Your task to perform on an android device: turn off smart reply in the gmail app Image 0: 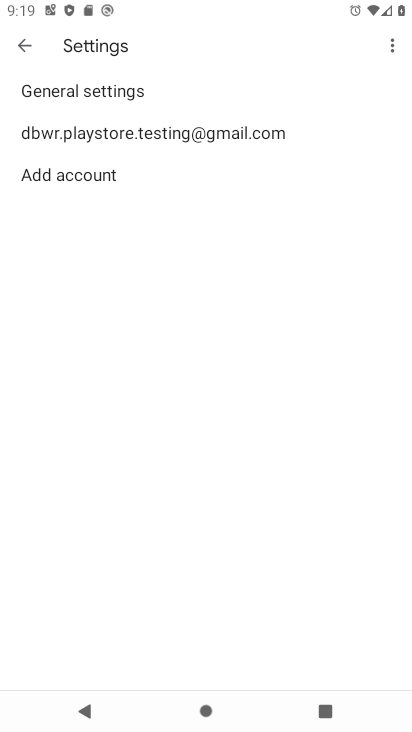
Step 0: press home button
Your task to perform on an android device: turn off smart reply in the gmail app Image 1: 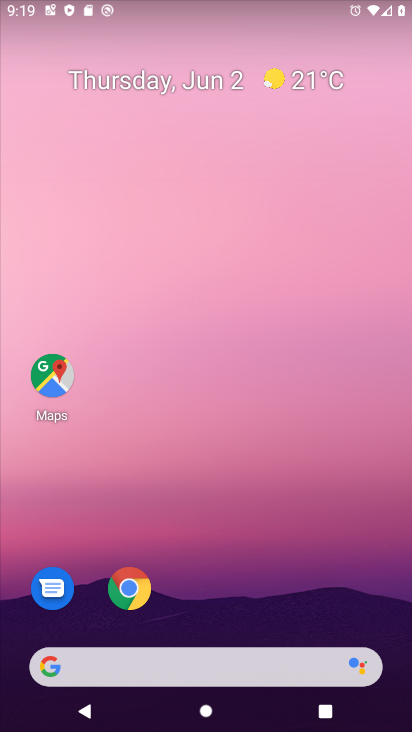
Step 1: drag from (220, 661) to (240, 87)
Your task to perform on an android device: turn off smart reply in the gmail app Image 2: 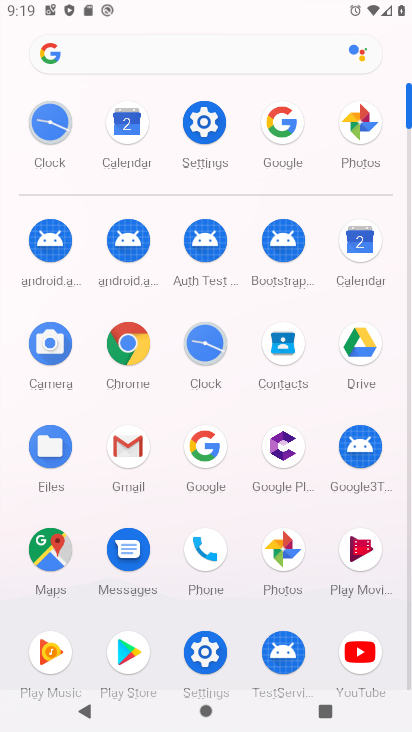
Step 2: click (136, 441)
Your task to perform on an android device: turn off smart reply in the gmail app Image 3: 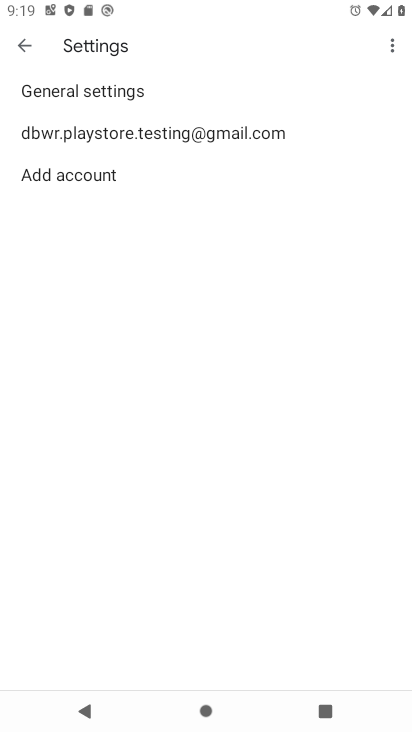
Step 3: click (233, 134)
Your task to perform on an android device: turn off smart reply in the gmail app Image 4: 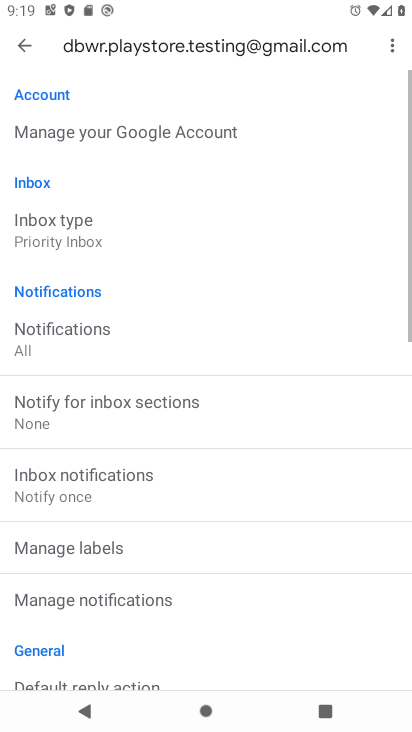
Step 4: drag from (156, 639) to (114, 3)
Your task to perform on an android device: turn off smart reply in the gmail app Image 5: 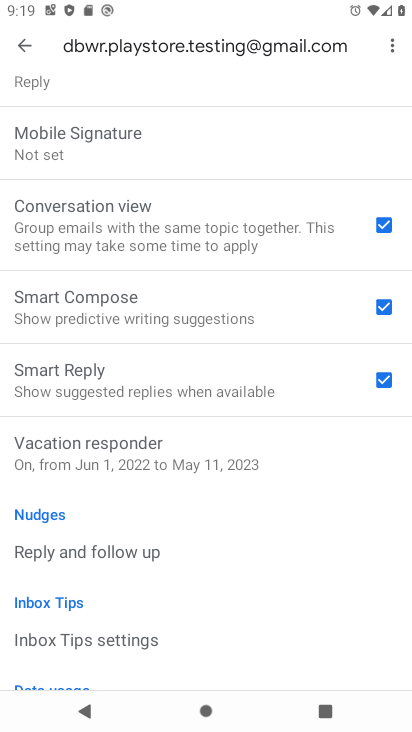
Step 5: click (383, 380)
Your task to perform on an android device: turn off smart reply in the gmail app Image 6: 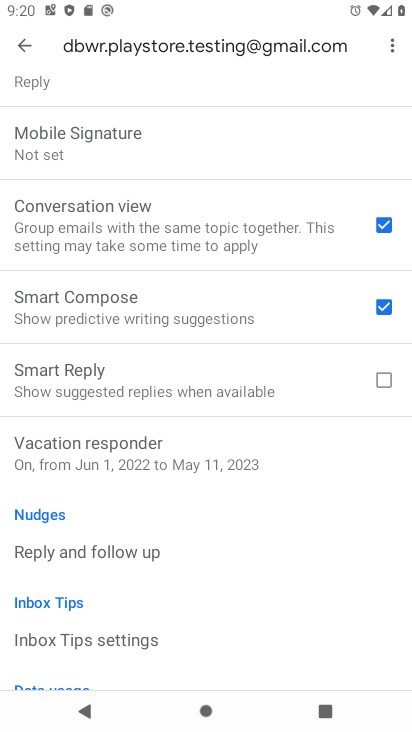
Step 6: task complete